Your task to perform on an android device: Open Wikipedia Image 0: 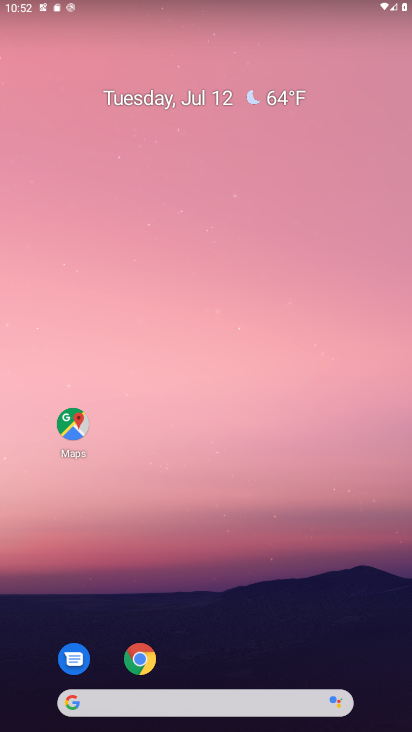
Step 0: click (146, 673)
Your task to perform on an android device: Open Wikipedia Image 1: 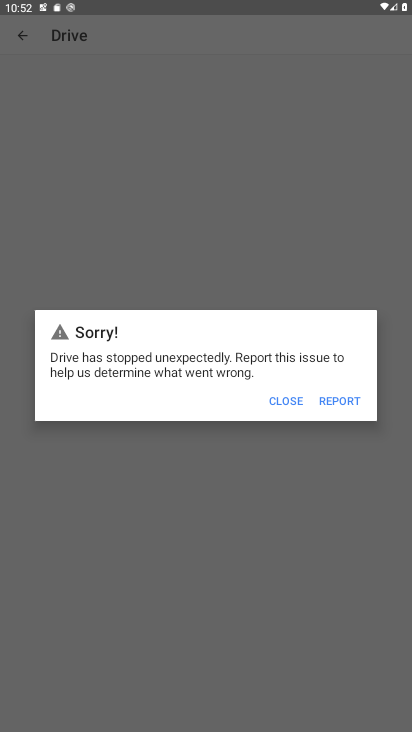
Step 1: press home button
Your task to perform on an android device: Open Wikipedia Image 2: 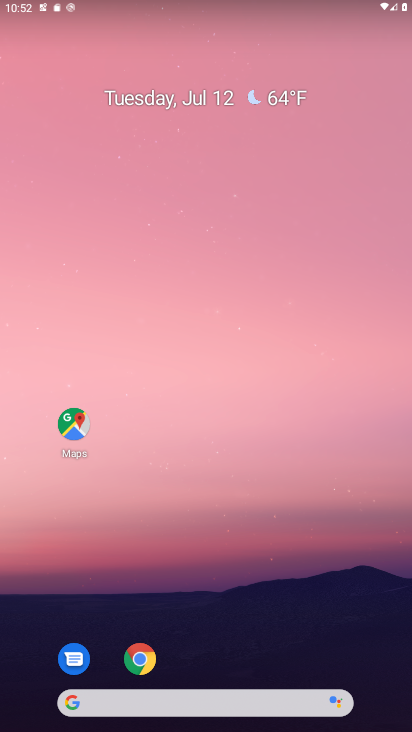
Step 2: click (148, 658)
Your task to perform on an android device: Open Wikipedia Image 3: 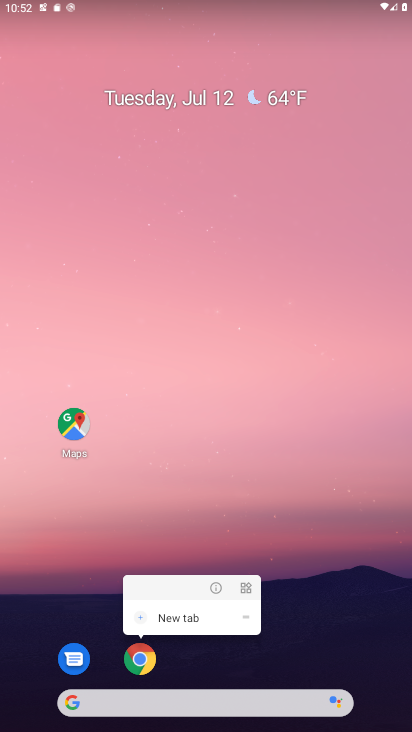
Step 3: click (148, 659)
Your task to perform on an android device: Open Wikipedia Image 4: 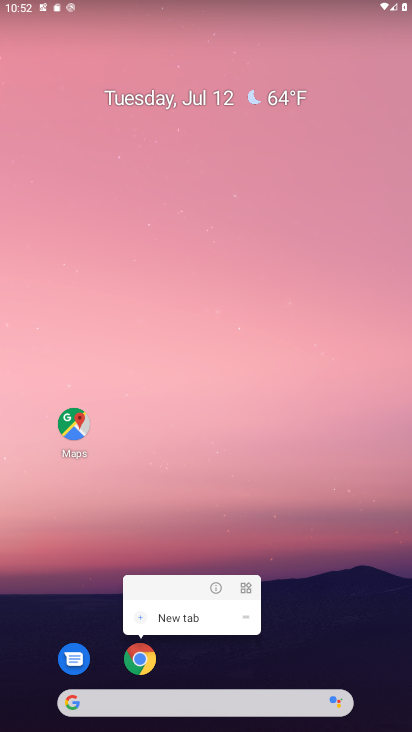
Step 4: click (149, 657)
Your task to perform on an android device: Open Wikipedia Image 5: 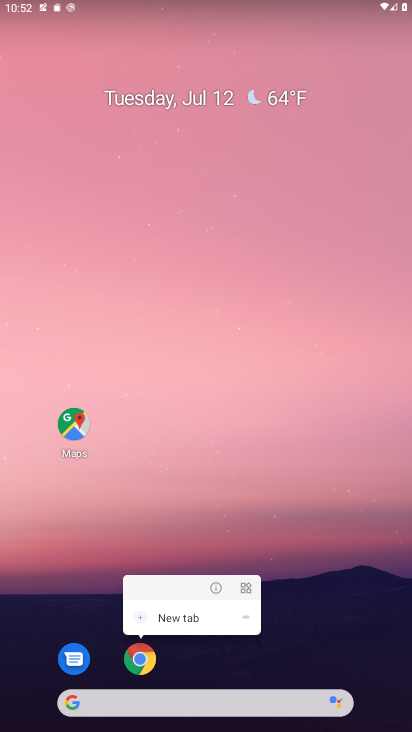
Step 5: click (140, 663)
Your task to perform on an android device: Open Wikipedia Image 6: 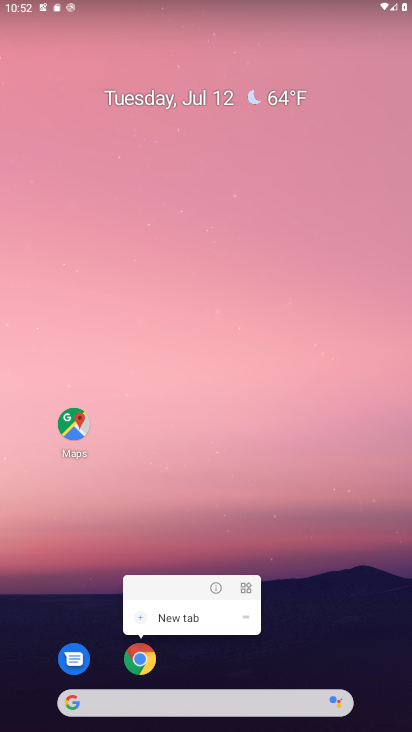
Step 6: click (134, 669)
Your task to perform on an android device: Open Wikipedia Image 7: 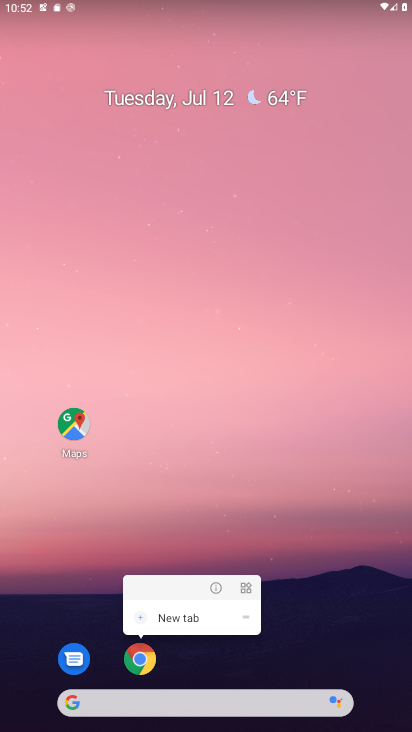
Step 7: click (143, 668)
Your task to perform on an android device: Open Wikipedia Image 8: 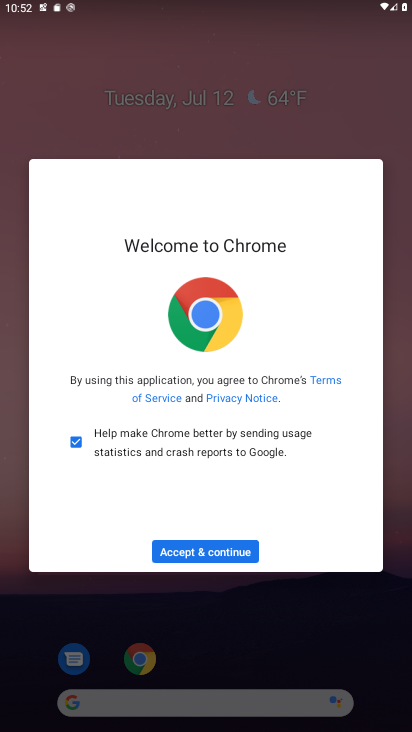
Step 8: click (228, 552)
Your task to perform on an android device: Open Wikipedia Image 9: 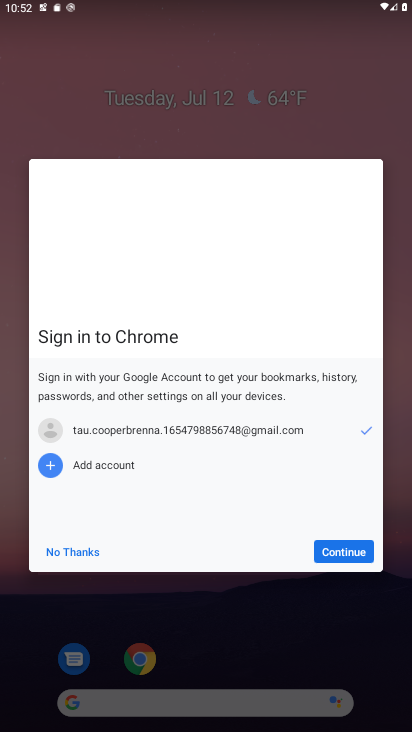
Step 9: click (339, 545)
Your task to perform on an android device: Open Wikipedia Image 10: 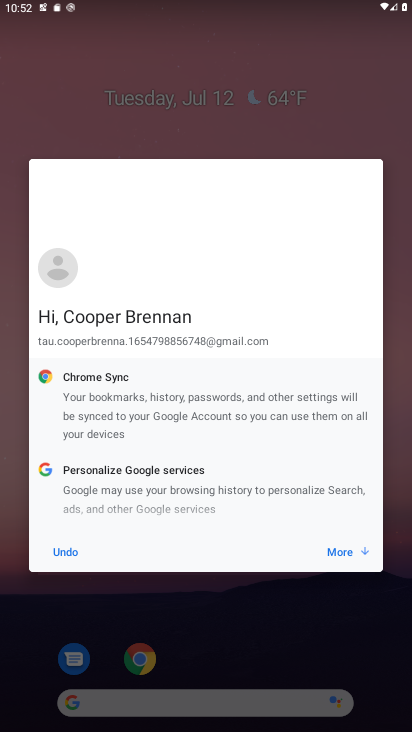
Step 10: click (339, 547)
Your task to perform on an android device: Open Wikipedia Image 11: 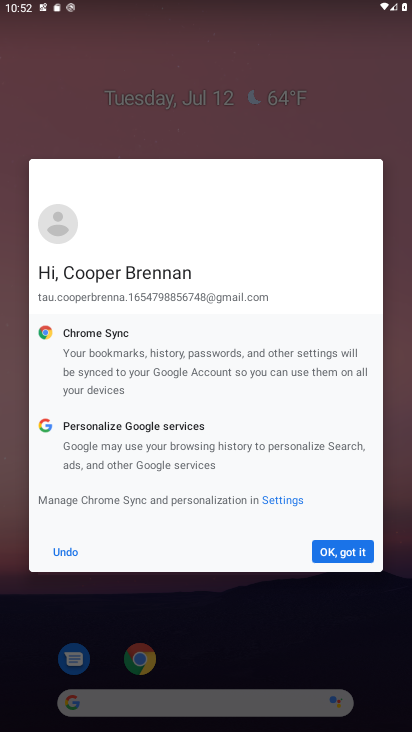
Step 11: click (342, 548)
Your task to perform on an android device: Open Wikipedia Image 12: 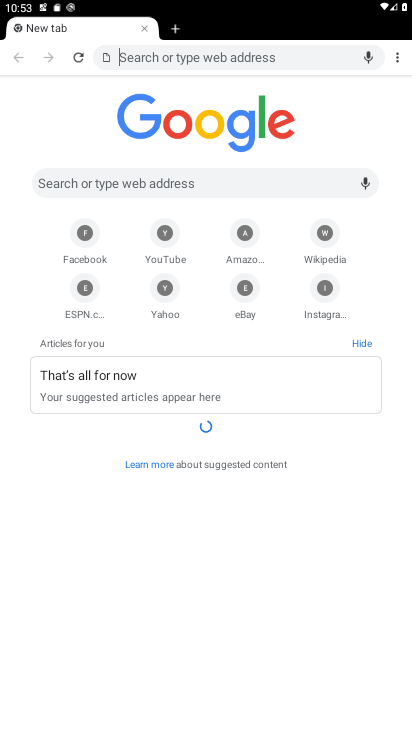
Step 12: click (330, 233)
Your task to perform on an android device: Open Wikipedia Image 13: 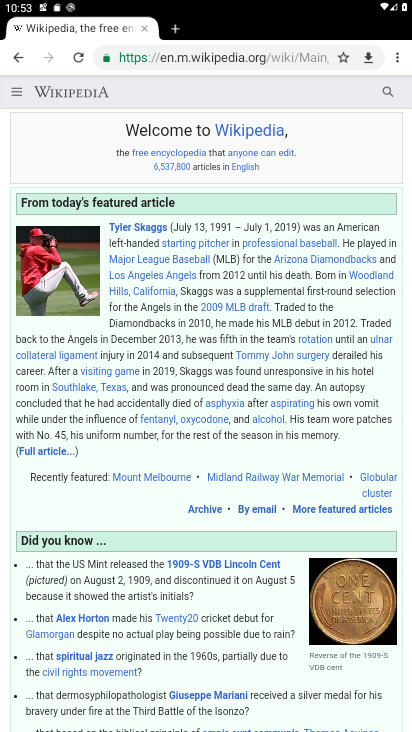
Step 13: task complete